Your task to perform on an android device: Go to Google maps Image 0: 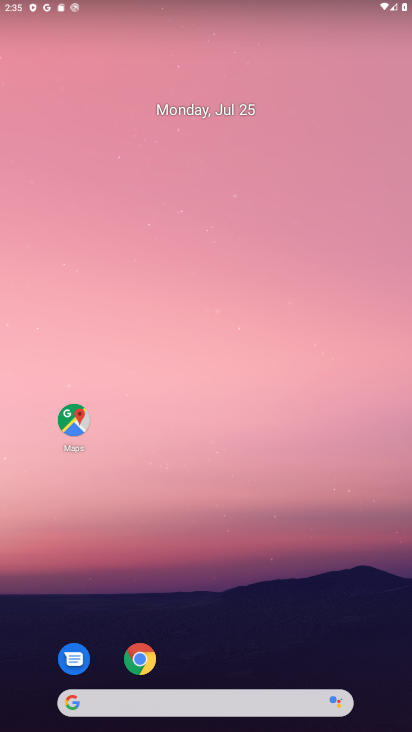
Step 0: drag from (225, 677) to (174, 123)
Your task to perform on an android device: Go to Google maps Image 1: 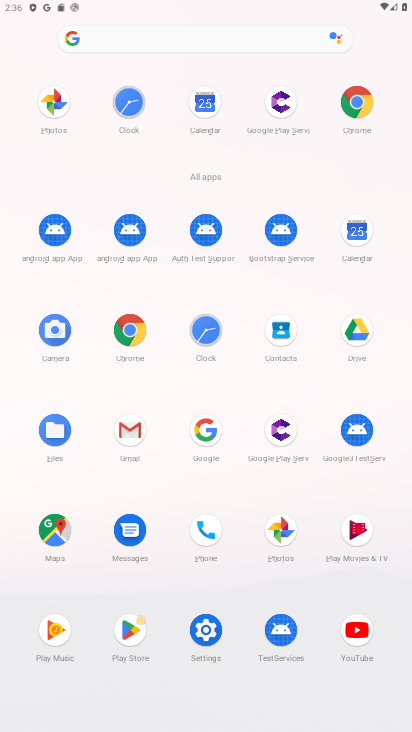
Step 1: click (56, 524)
Your task to perform on an android device: Go to Google maps Image 2: 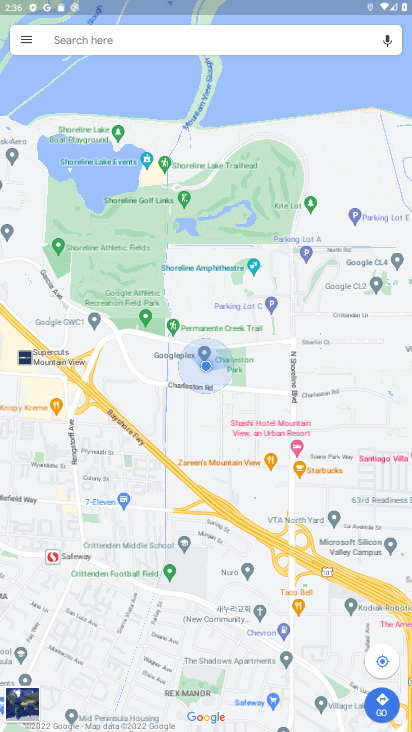
Step 2: task complete